Your task to perform on an android device: Open wifi settings Image 0: 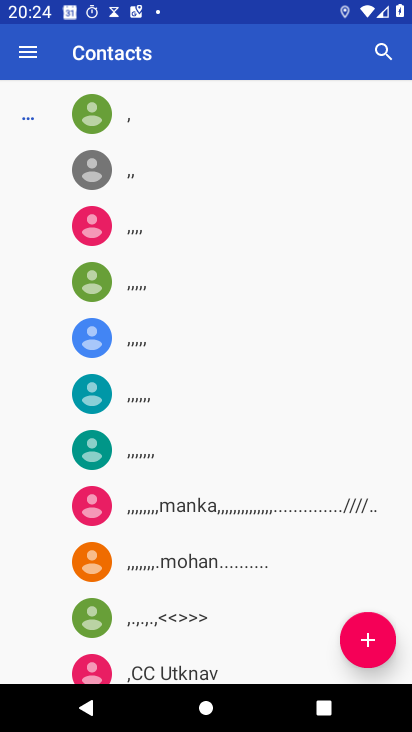
Step 0: press home button
Your task to perform on an android device: Open wifi settings Image 1: 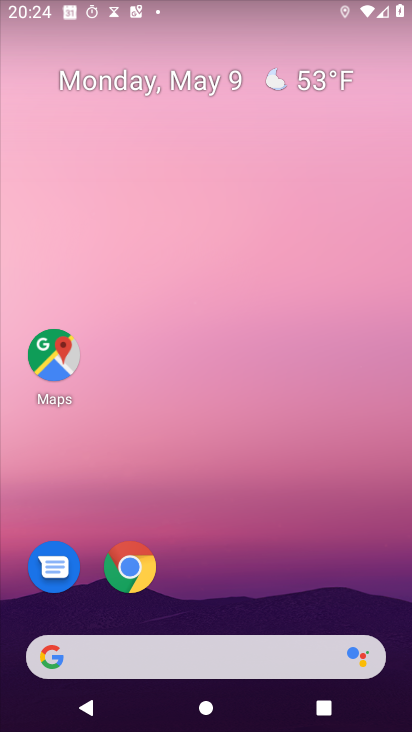
Step 1: drag from (236, 596) to (210, 23)
Your task to perform on an android device: Open wifi settings Image 2: 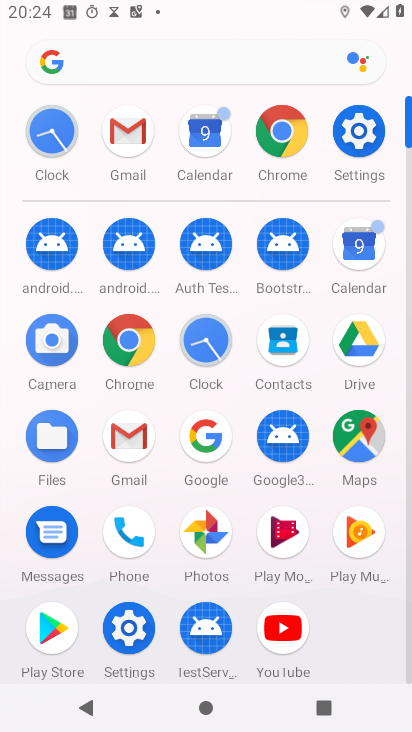
Step 2: click (141, 639)
Your task to perform on an android device: Open wifi settings Image 3: 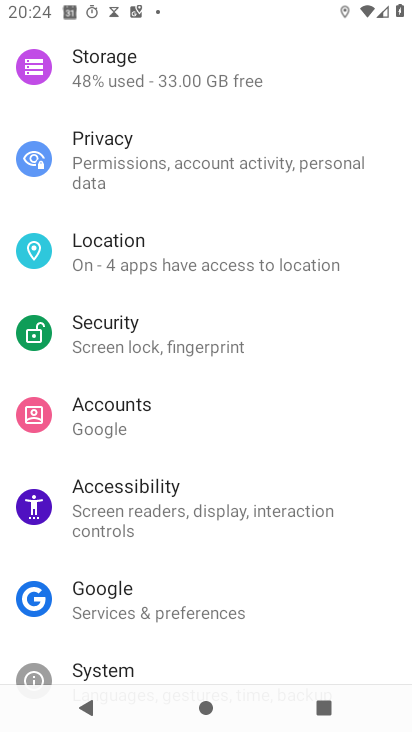
Step 3: drag from (154, 353) to (172, 446)
Your task to perform on an android device: Open wifi settings Image 4: 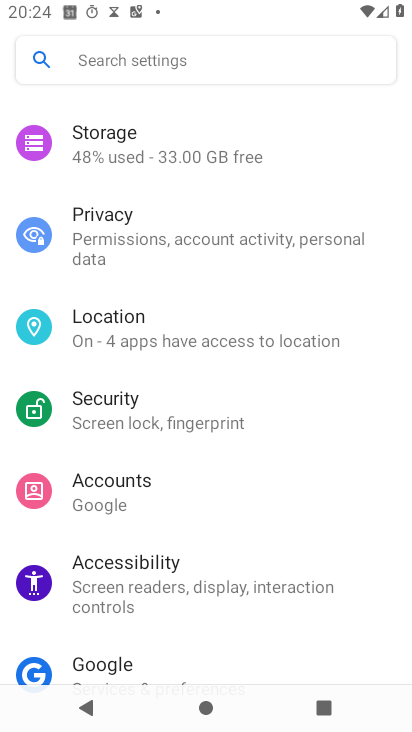
Step 4: drag from (152, 324) to (175, 417)
Your task to perform on an android device: Open wifi settings Image 5: 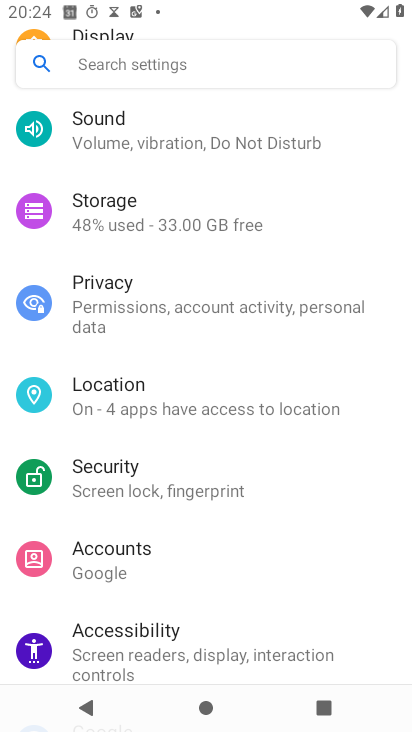
Step 5: drag from (167, 329) to (200, 448)
Your task to perform on an android device: Open wifi settings Image 6: 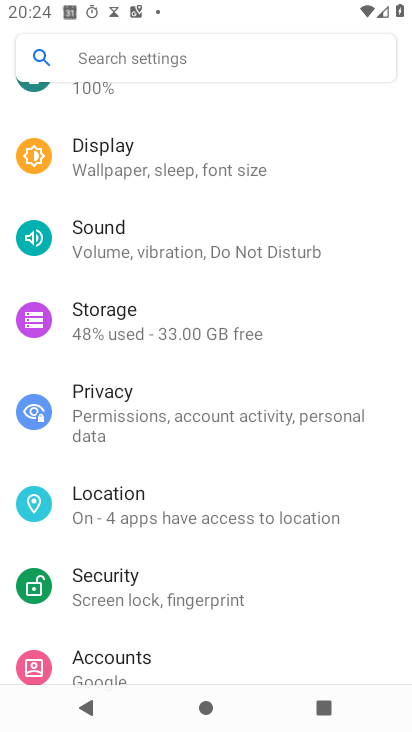
Step 6: drag from (133, 358) to (133, 430)
Your task to perform on an android device: Open wifi settings Image 7: 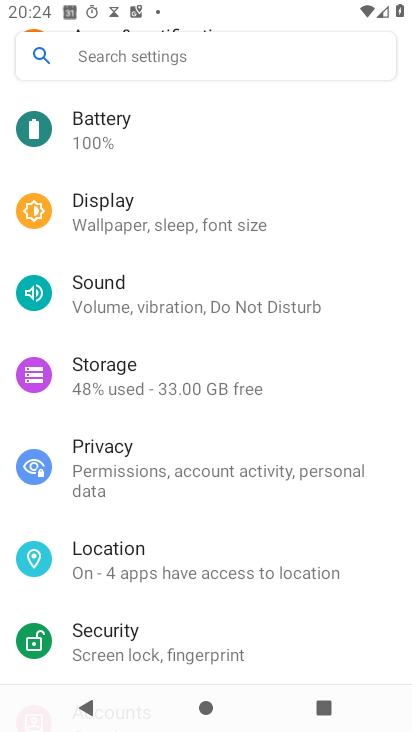
Step 7: drag from (129, 246) to (144, 390)
Your task to perform on an android device: Open wifi settings Image 8: 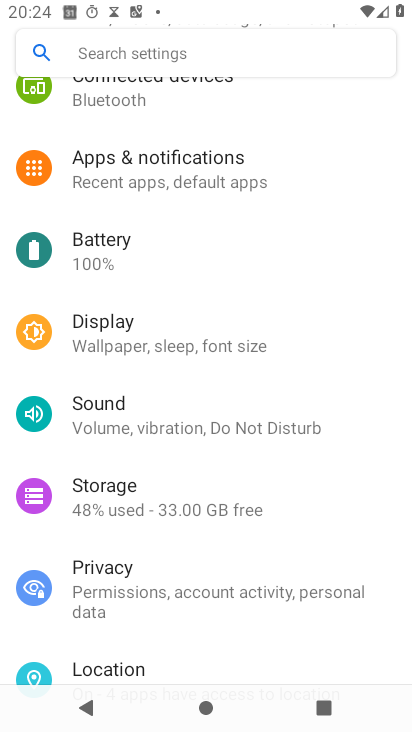
Step 8: drag from (103, 295) to (92, 434)
Your task to perform on an android device: Open wifi settings Image 9: 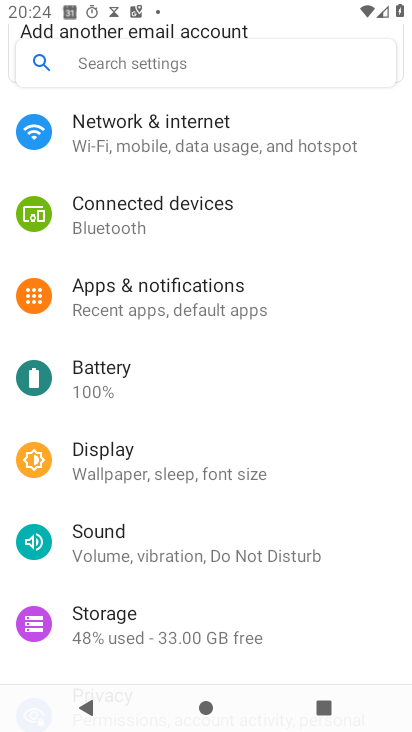
Step 9: click (151, 132)
Your task to perform on an android device: Open wifi settings Image 10: 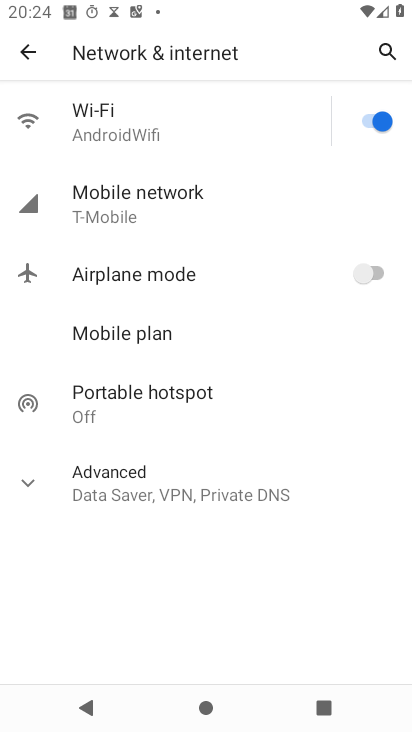
Step 10: click (145, 126)
Your task to perform on an android device: Open wifi settings Image 11: 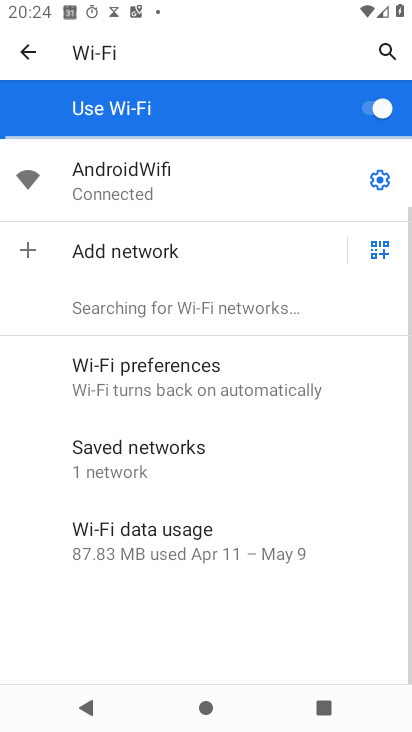
Step 11: task complete